Your task to perform on an android device: Search for macbook pro 15 inch on newegg, select the first entry, and add it to the cart. Image 0: 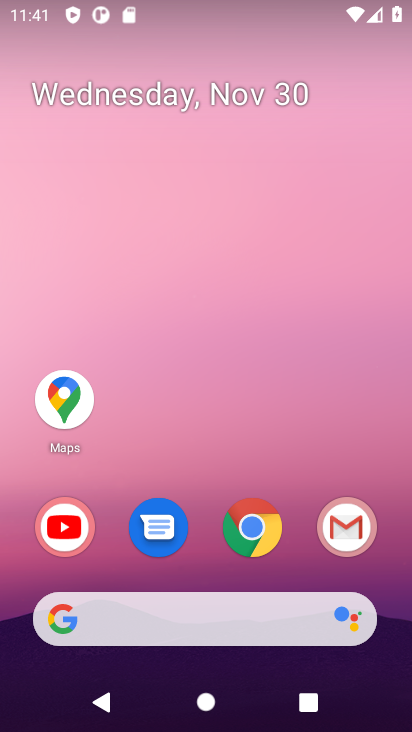
Step 0: click (249, 527)
Your task to perform on an android device: Search for macbook pro 15 inch on newegg, select the first entry, and add it to the cart. Image 1: 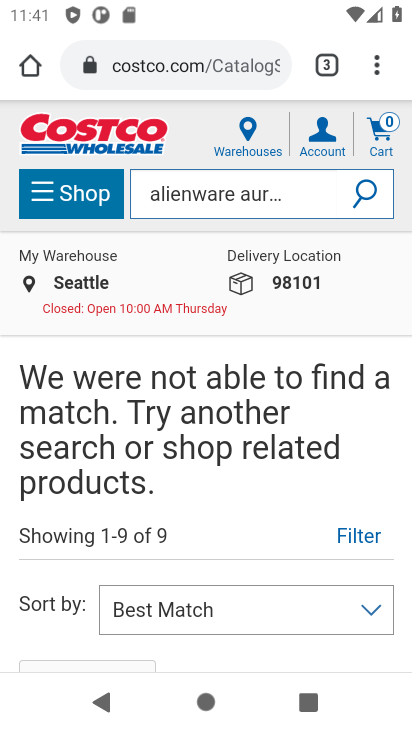
Step 1: click (147, 66)
Your task to perform on an android device: Search for macbook pro 15 inch on newegg, select the first entry, and add it to the cart. Image 2: 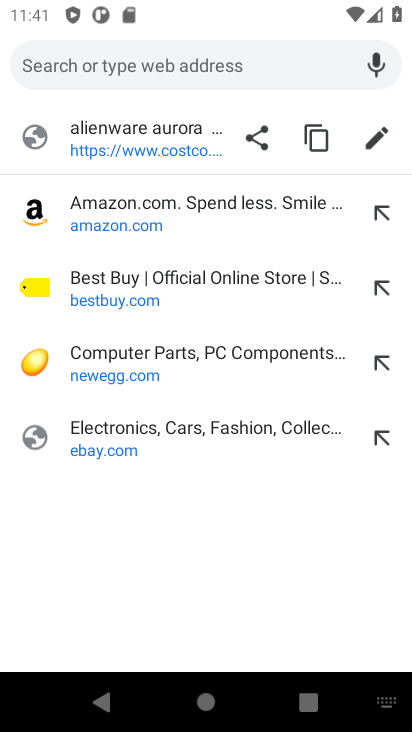
Step 2: click (125, 350)
Your task to perform on an android device: Search for macbook pro 15 inch on newegg, select the first entry, and add it to the cart. Image 3: 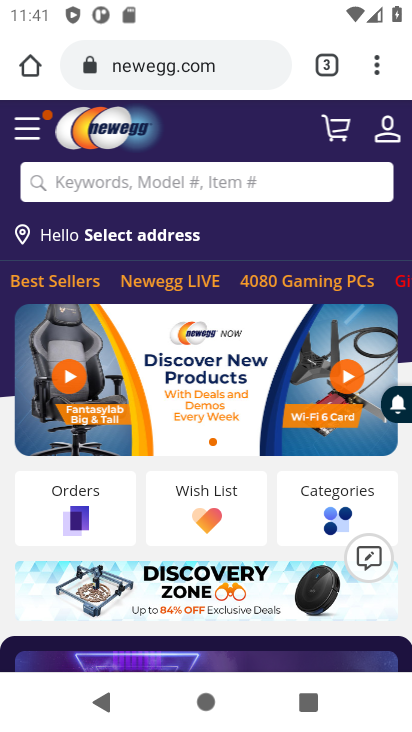
Step 3: click (101, 189)
Your task to perform on an android device: Search for macbook pro 15 inch on newegg, select the first entry, and add it to the cart. Image 4: 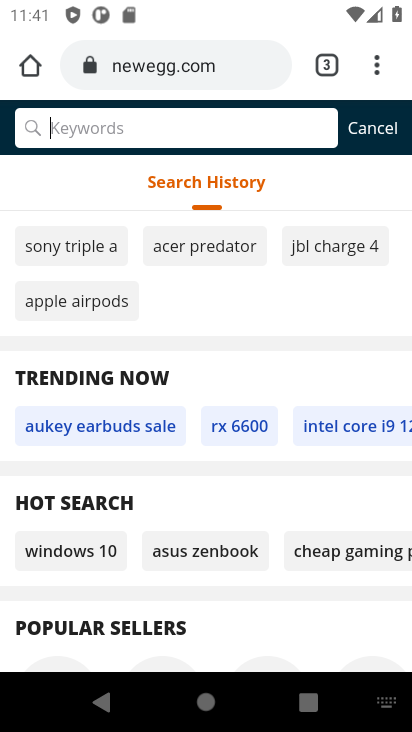
Step 4: type "macbook pro 15 inch"
Your task to perform on an android device: Search for macbook pro 15 inch on newegg, select the first entry, and add it to the cart. Image 5: 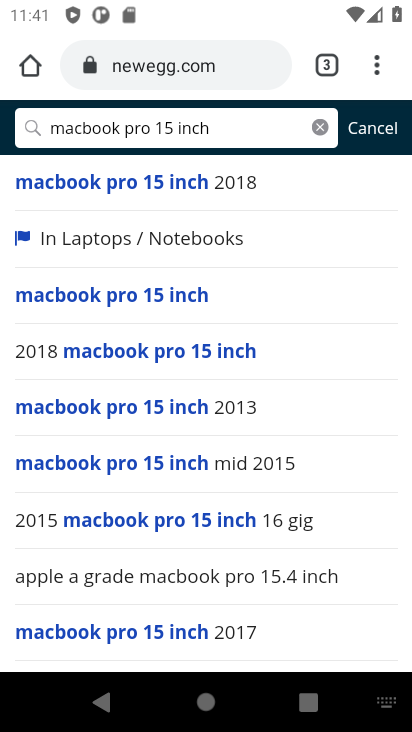
Step 5: click (191, 295)
Your task to perform on an android device: Search for macbook pro 15 inch on newegg, select the first entry, and add it to the cart. Image 6: 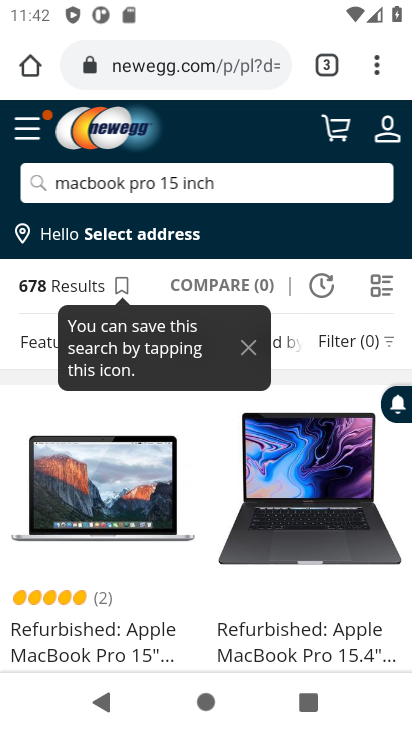
Step 6: drag from (204, 454) to (210, 170)
Your task to perform on an android device: Search for macbook pro 15 inch on newegg, select the first entry, and add it to the cart. Image 7: 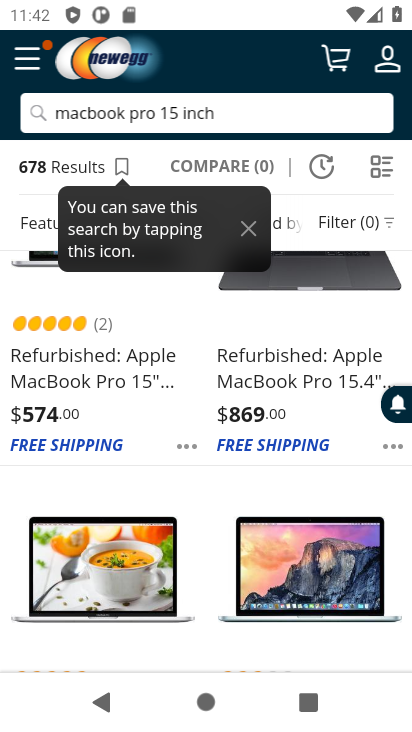
Step 7: click (70, 296)
Your task to perform on an android device: Search for macbook pro 15 inch on newegg, select the first entry, and add it to the cart. Image 8: 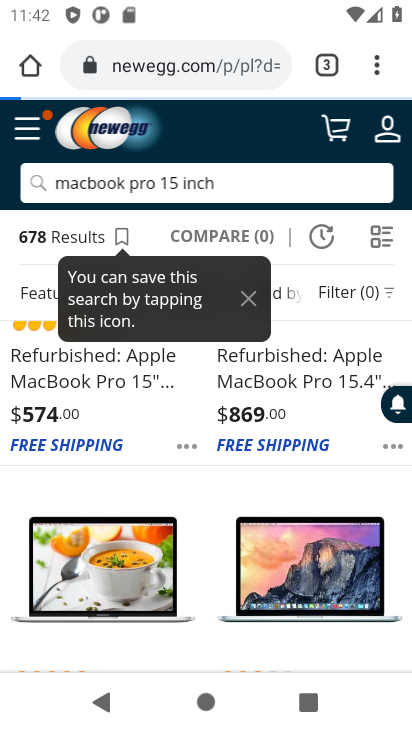
Step 8: click (51, 371)
Your task to perform on an android device: Search for macbook pro 15 inch on newegg, select the first entry, and add it to the cart. Image 9: 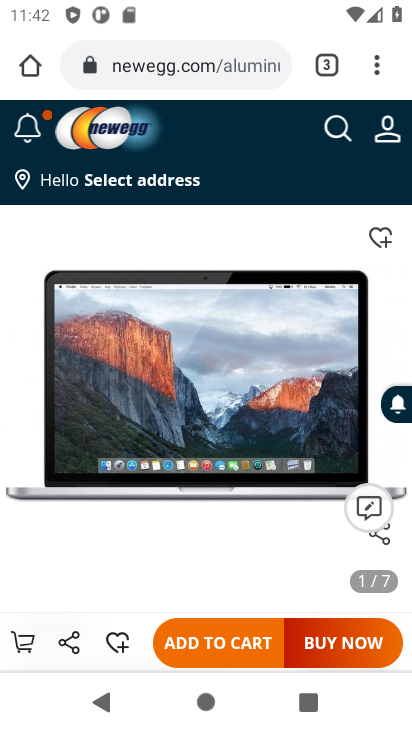
Step 9: drag from (123, 489) to (129, 265)
Your task to perform on an android device: Search for macbook pro 15 inch on newegg, select the first entry, and add it to the cart. Image 10: 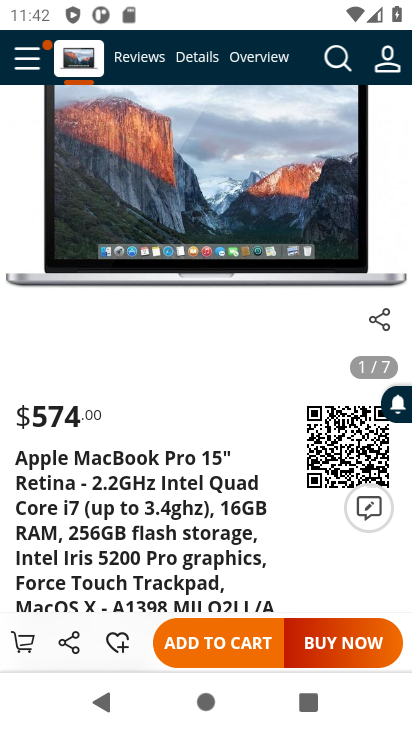
Step 10: click (221, 637)
Your task to perform on an android device: Search for macbook pro 15 inch on newegg, select the first entry, and add it to the cart. Image 11: 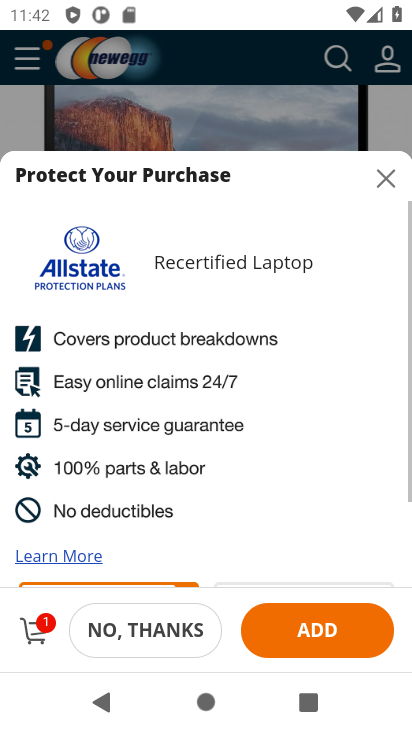
Step 11: task complete